Your task to perform on an android device: Search for sushi restaurants on Maps Image 0: 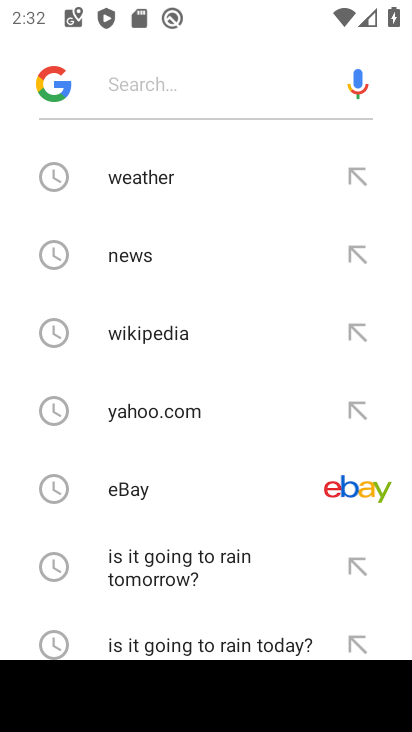
Step 0: press home button
Your task to perform on an android device: Search for sushi restaurants on Maps Image 1: 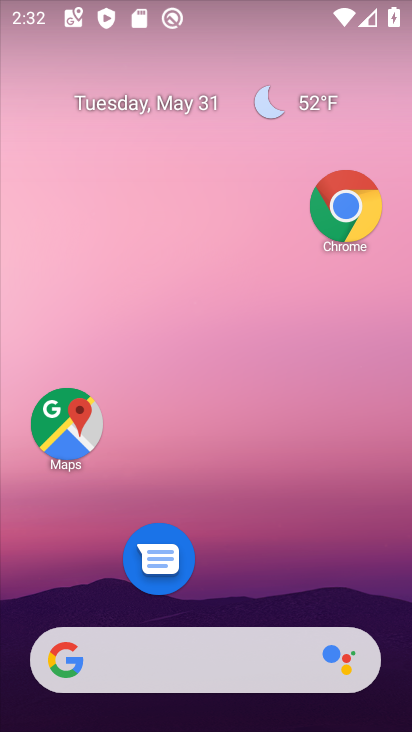
Step 1: drag from (283, 549) to (59, 149)
Your task to perform on an android device: Search for sushi restaurants on Maps Image 2: 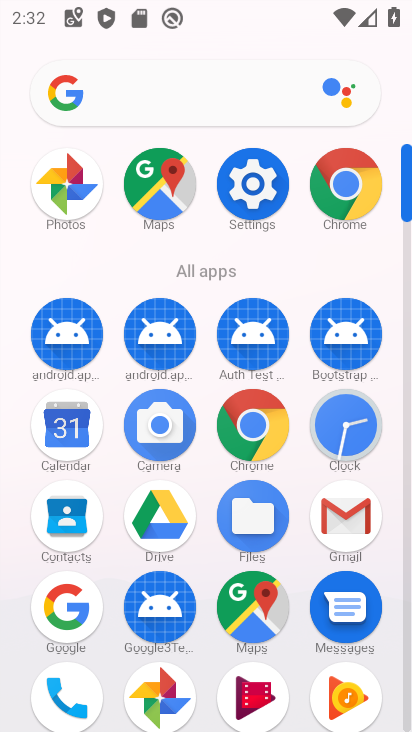
Step 2: click (232, 605)
Your task to perform on an android device: Search for sushi restaurants on Maps Image 3: 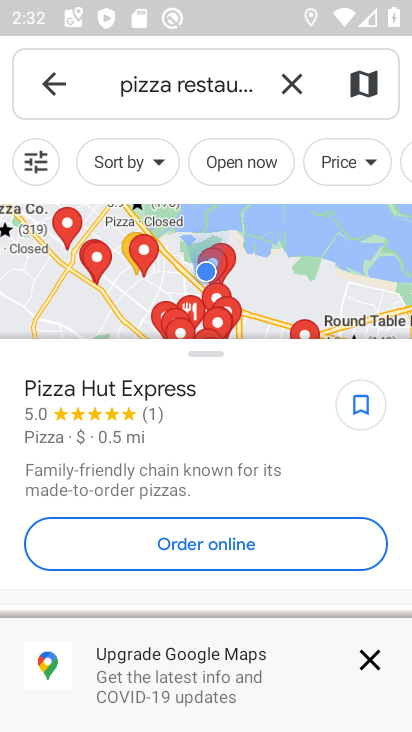
Step 3: click (293, 95)
Your task to perform on an android device: Search for sushi restaurants on Maps Image 4: 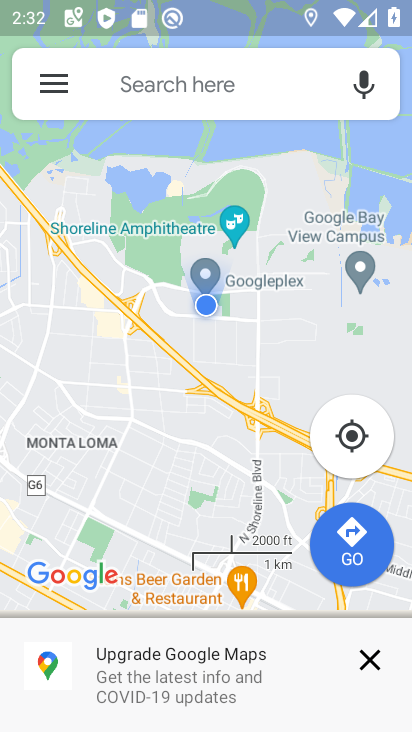
Step 4: click (219, 94)
Your task to perform on an android device: Search for sushi restaurants on Maps Image 5: 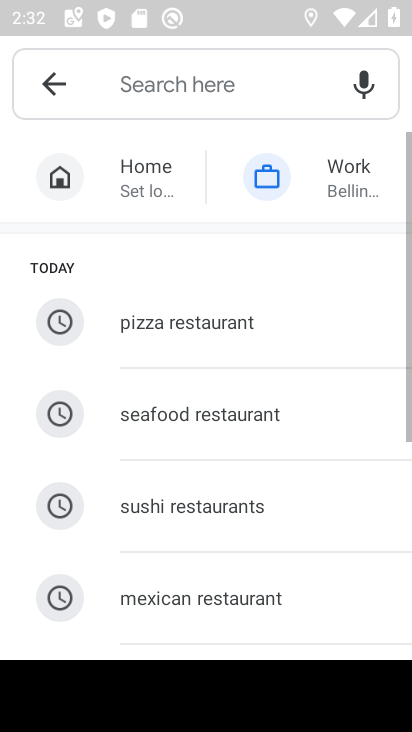
Step 5: click (209, 513)
Your task to perform on an android device: Search for sushi restaurants on Maps Image 6: 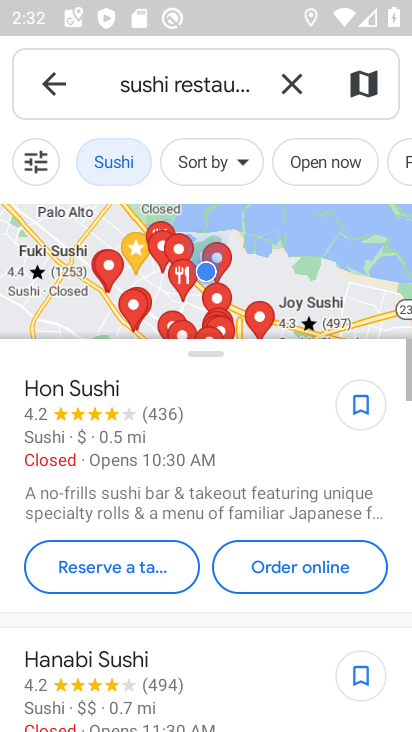
Step 6: task complete